Your task to perform on an android device: check battery use Image 0: 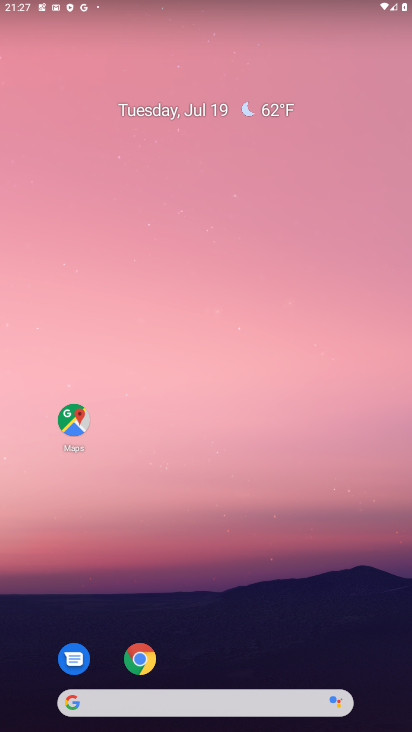
Step 0: press home button
Your task to perform on an android device: check battery use Image 1: 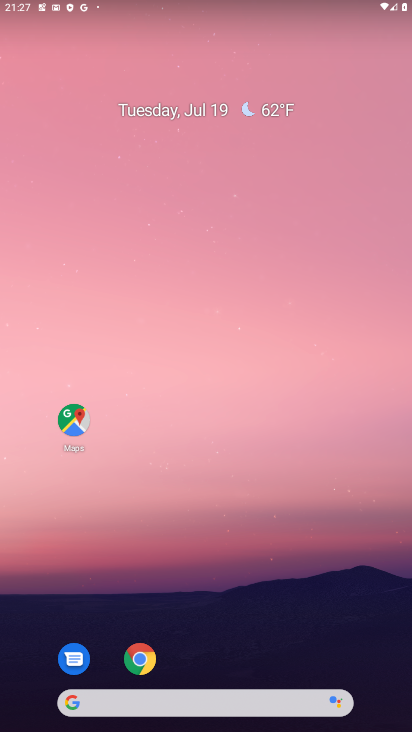
Step 1: drag from (276, 613) to (394, 47)
Your task to perform on an android device: check battery use Image 2: 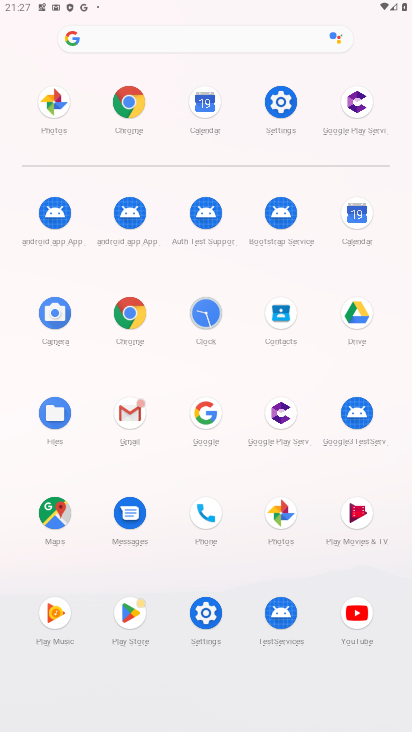
Step 2: click (287, 112)
Your task to perform on an android device: check battery use Image 3: 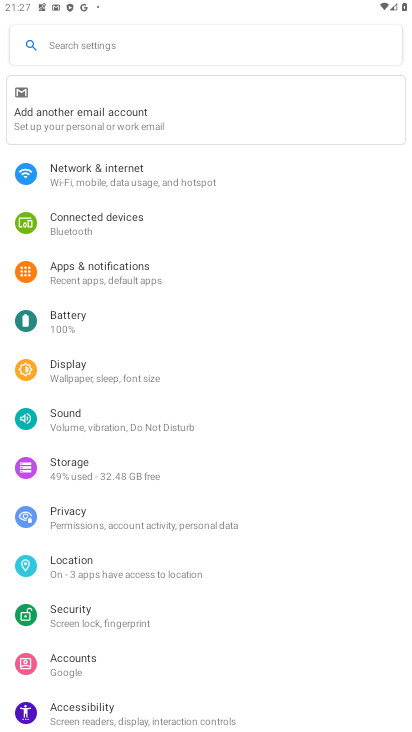
Step 3: click (83, 318)
Your task to perform on an android device: check battery use Image 4: 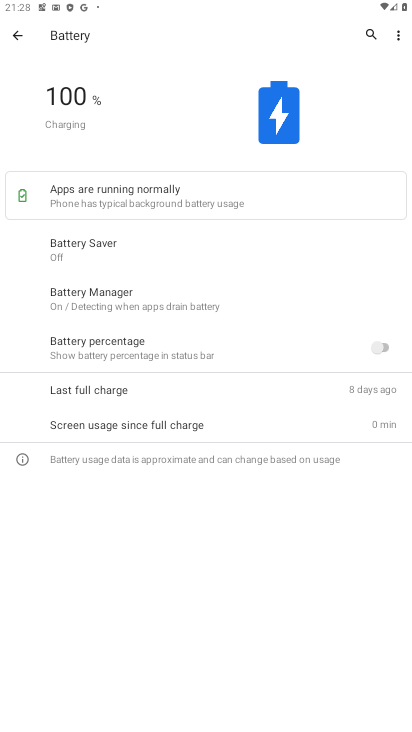
Step 4: task complete